Your task to perform on an android device: remove spam from my inbox in the gmail app Image 0: 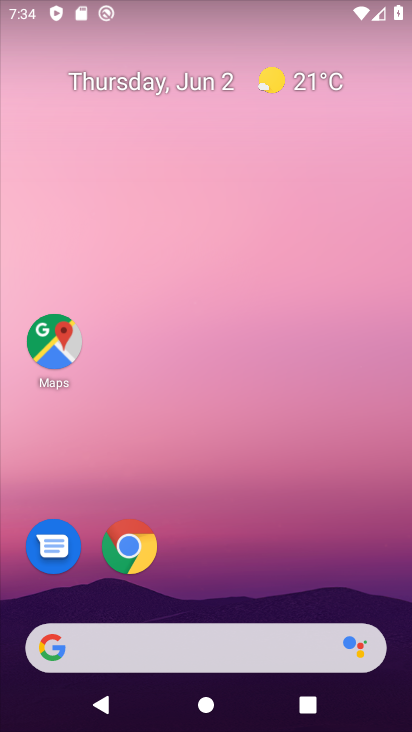
Step 0: drag from (300, 526) to (302, 190)
Your task to perform on an android device: remove spam from my inbox in the gmail app Image 1: 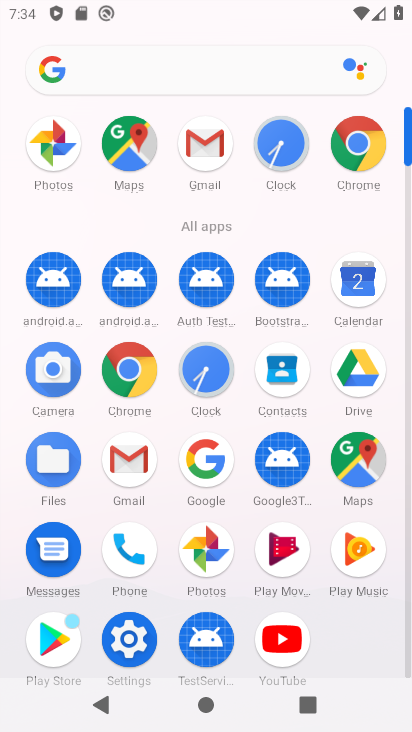
Step 1: click (116, 476)
Your task to perform on an android device: remove spam from my inbox in the gmail app Image 2: 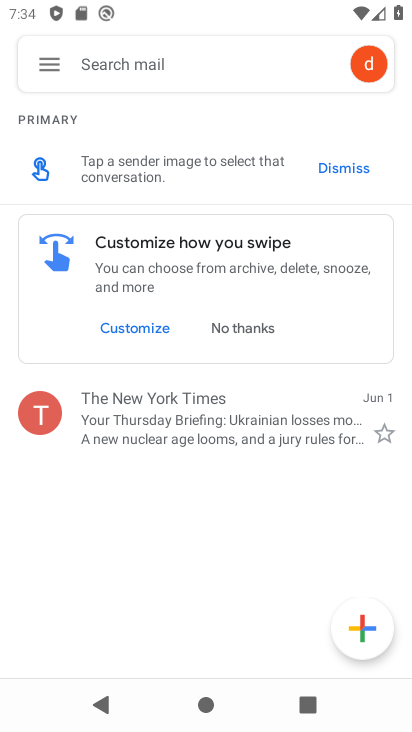
Step 2: click (36, 51)
Your task to perform on an android device: remove spam from my inbox in the gmail app Image 3: 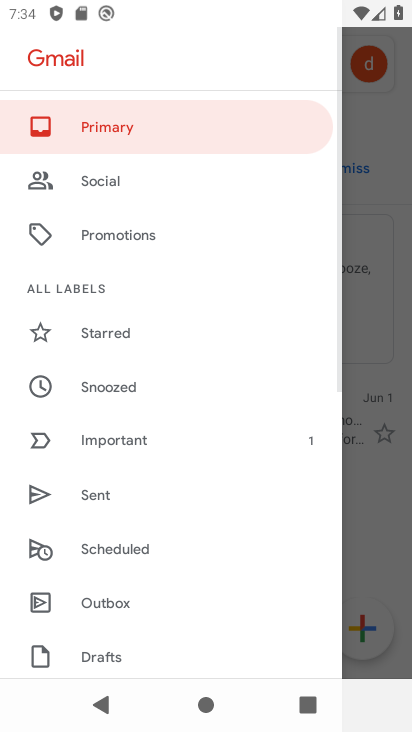
Step 3: drag from (100, 611) to (139, 279)
Your task to perform on an android device: remove spam from my inbox in the gmail app Image 4: 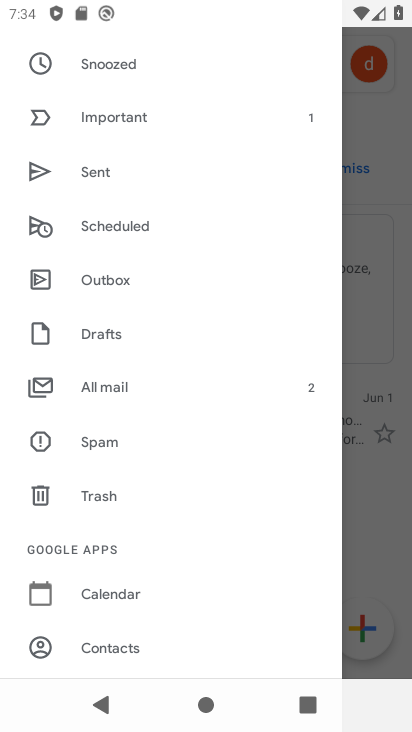
Step 4: click (109, 445)
Your task to perform on an android device: remove spam from my inbox in the gmail app Image 5: 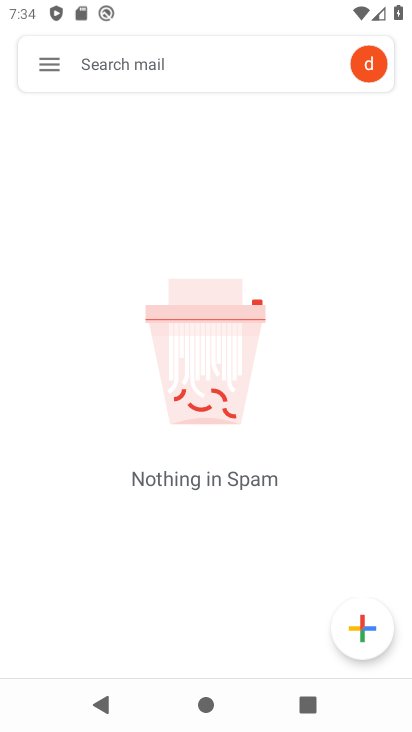
Step 5: task complete